Your task to perform on an android device: Show me popular videos on Youtube Image 0: 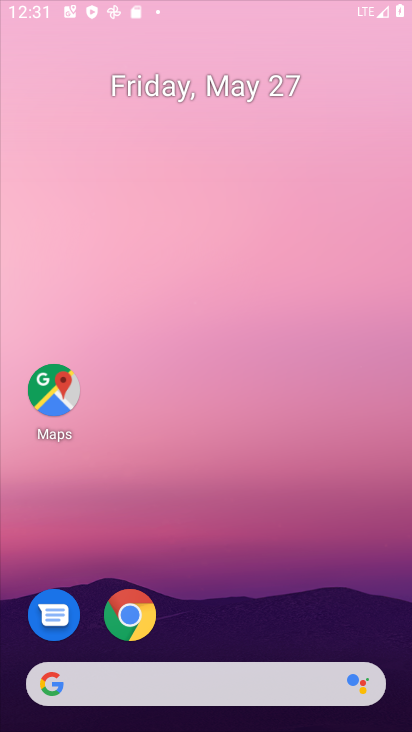
Step 0: drag from (280, 655) to (369, 29)
Your task to perform on an android device: Show me popular videos on Youtube Image 1: 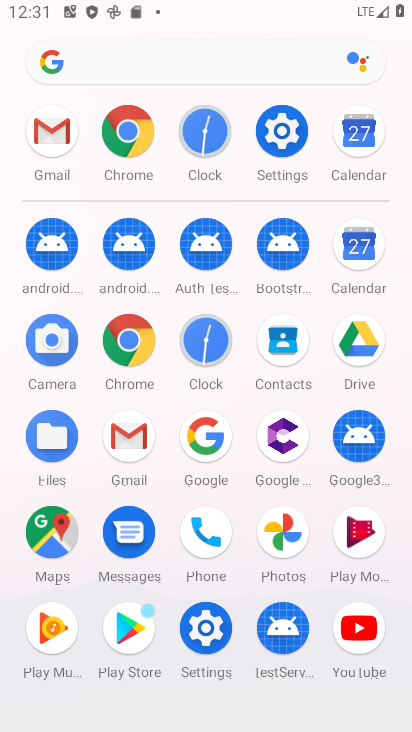
Step 1: click (120, 344)
Your task to perform on an android device: Show me popular videos on Youtube Image 2: 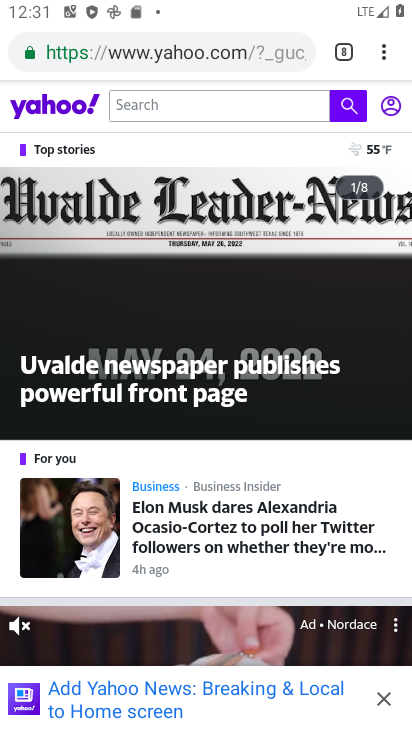
Step 2: press home button
Your task to perform on an android device: Show me popular videos on Youtube Image 3: 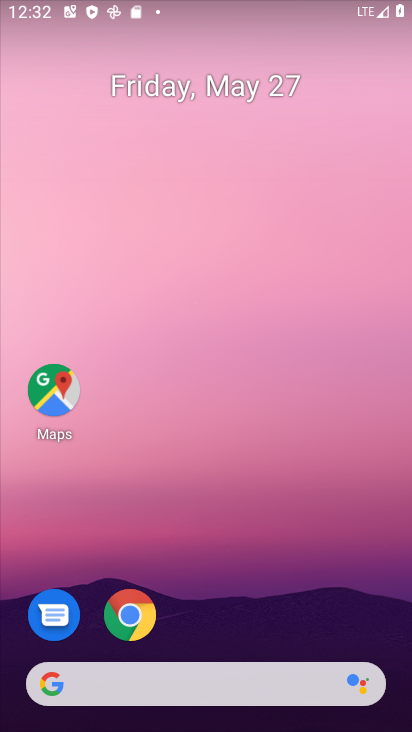
Step 3: drag from (274, 536) to (313, 19)
Your task to perform on an android device: Show me popular videos on Youtube Image 4: 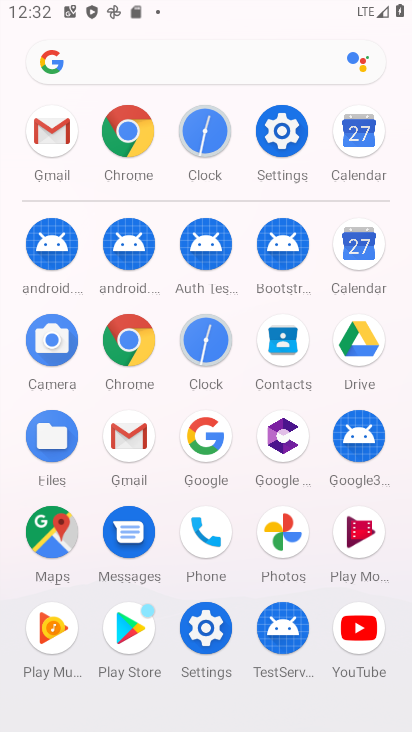
Step 4: drag from (254, 585) to (302, 112)
Your task to perform on an android device: Show me popular videos on Youtube Image 5: 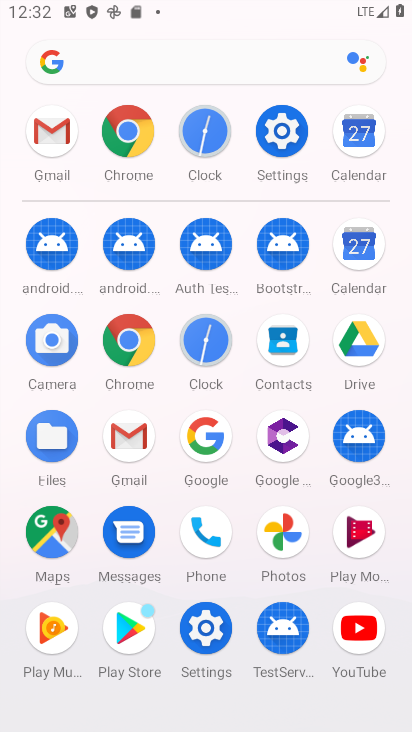
Step 5: click (353, 634)
Your task to perform on an android device: Show me popular videos on Youtube Image 6: 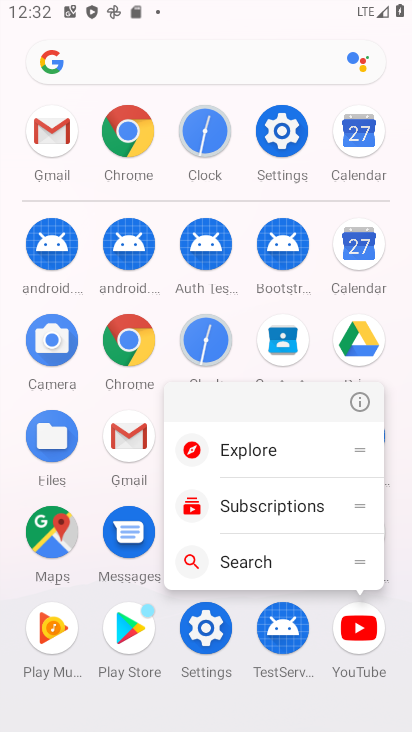
Step 6: click (353, 634)
Your task to perform on an android device: Show me popular videos on Youtube Image 7: 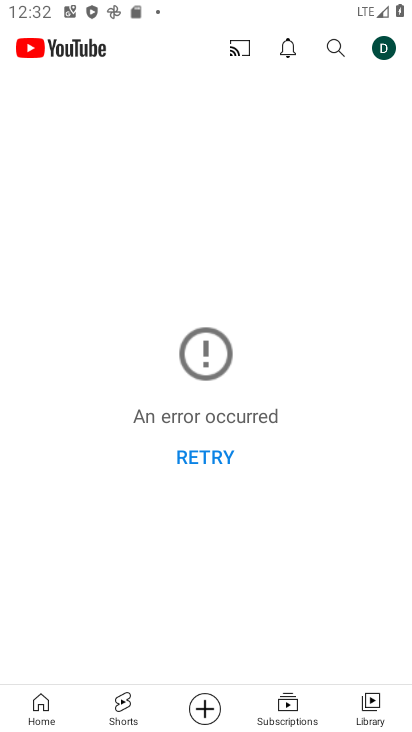
Step 7: click (46, 712)
Your task to perform on an android device: Show me popular videos on Youtube Image 8: 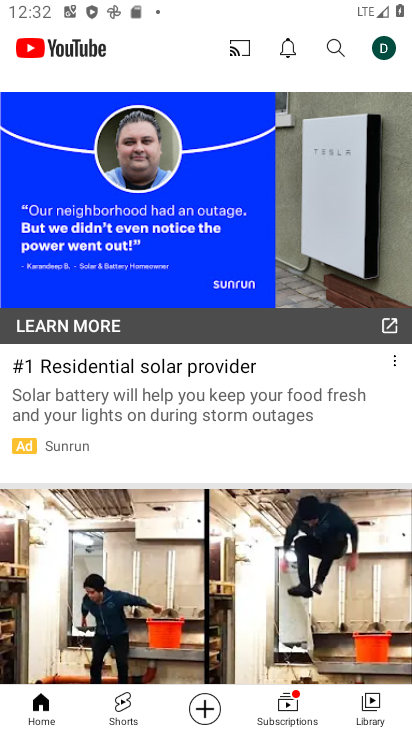
Step 8: task complete